Your task to perform on an android device: turn on the 24-hour format for clock Image 0: 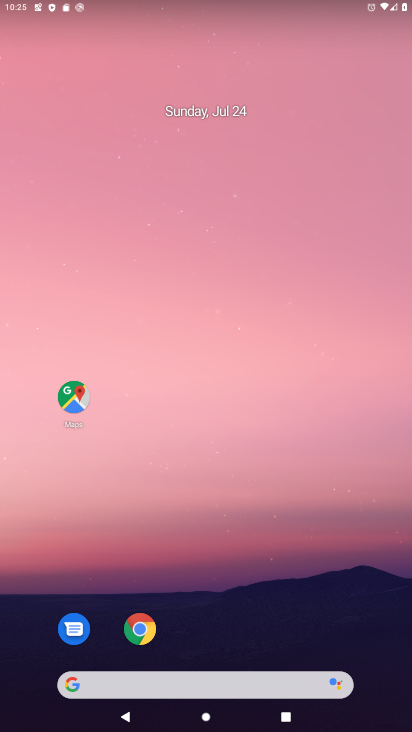
Step 0: drag from (173, 652) to (212, 375)
Your task to perform on an android device: turn on the 24-hour format for clock Image 1: 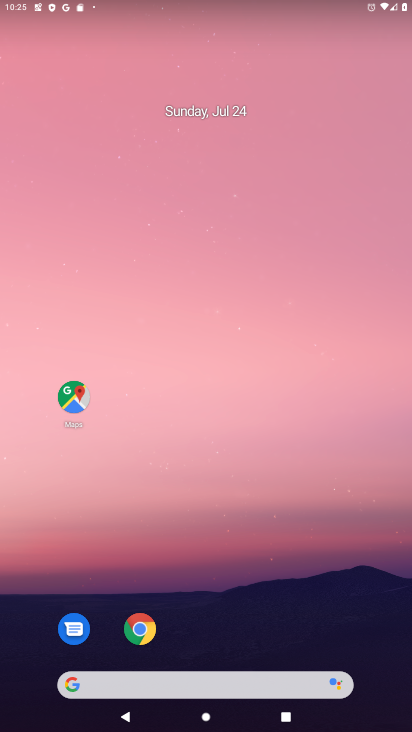
Step 1: drag from (199, 574) to (269, 128)
Your task to perform on an android device: turn on the 24-hour format for clock Image 2: 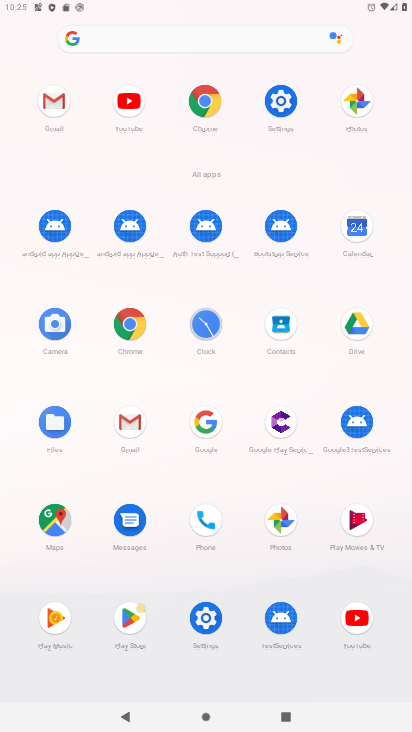
Step 2: click (213, 323)
Your task to perform on an android device: turn on the 24-hour format for clock Image 3: 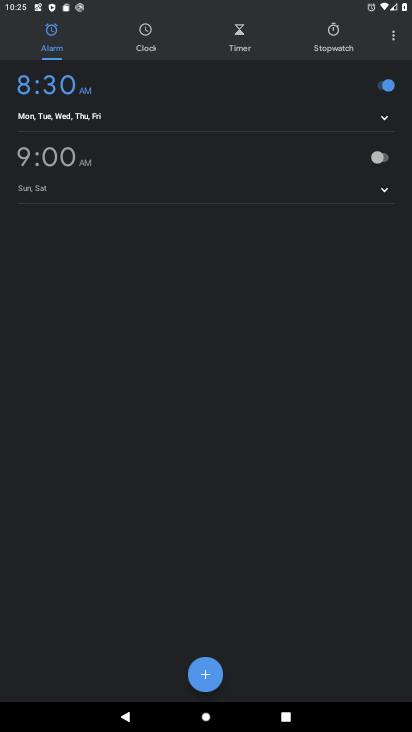
Step 3: drag from (389, 40) to (372, 70)
Your task to perform on an android device: turn on the 24-hour format for clock Image 4: 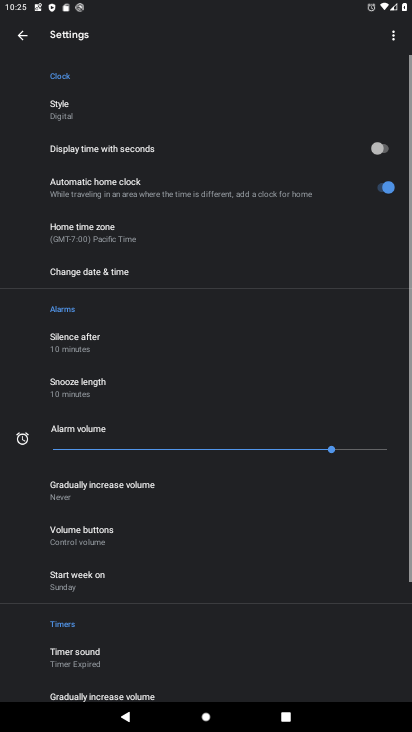
Step 4: drag from (163, 572) to (232, 242)
Your task to perform on an android device: turn on the 24-hour format for clock Image 5: 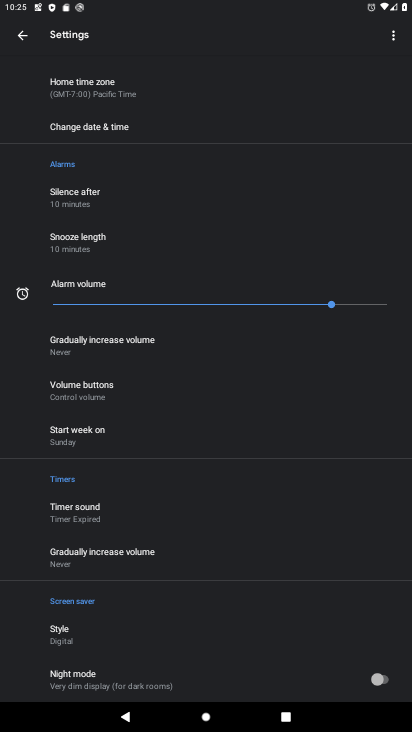
Step 5: click (178, 119)
Your task to perform on an android device: turn on the 24-hour format for clock Image 6: 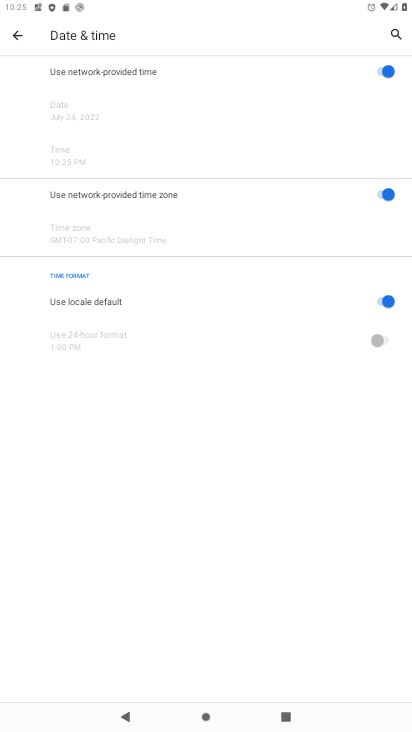
Step 6: click (374, 298)
Your task to perform on an android device: turn on the 24-hour format for clock Image 7: 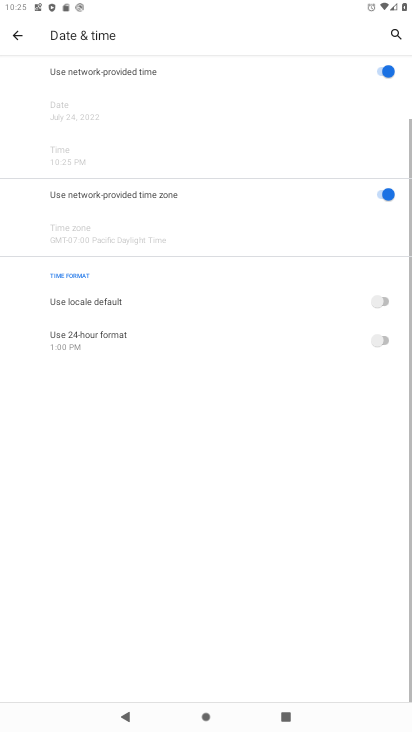
Step 7: click (378, 333)
Your task to perform on an android device: turn on the 24-hour format for clock Image 8: 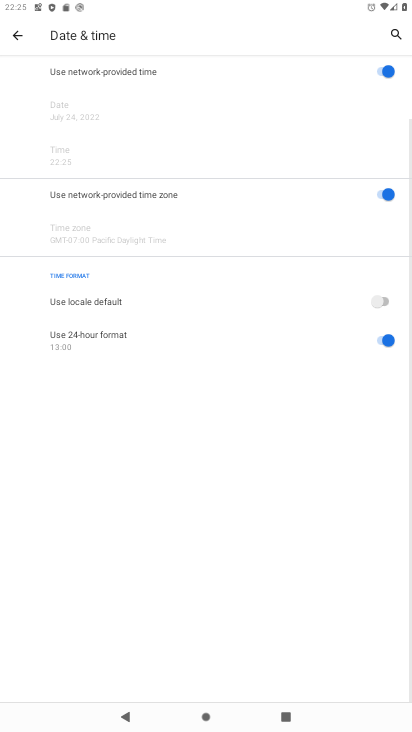
Step 8: task complete